Your task to perform on an android device: What's on my calendar tomorrow? Image 0: 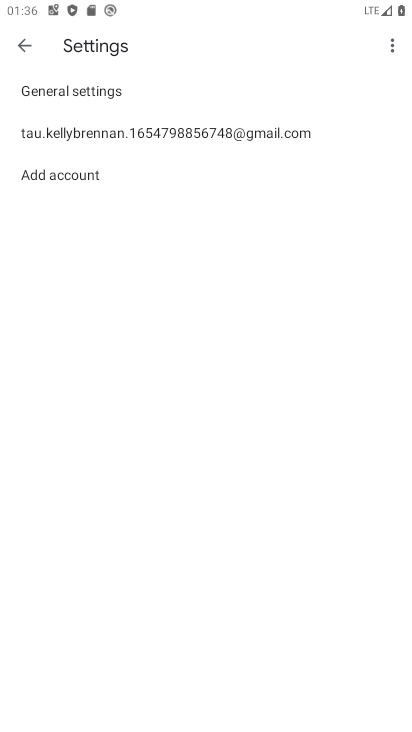
Step 0: press home button
Your task to perform on an android device: What's on my calendar tomorrow? Image 1: 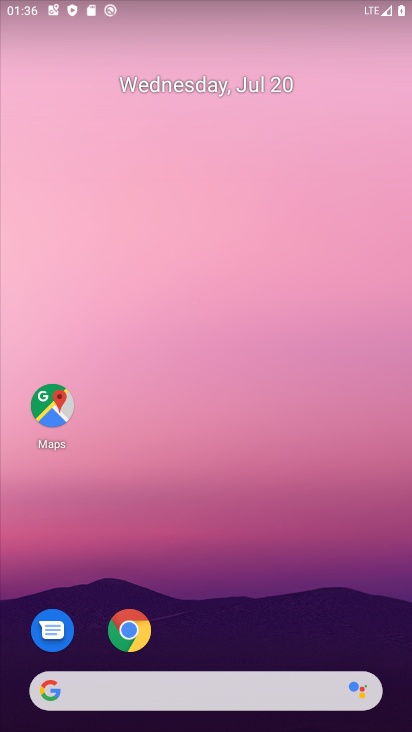
Step 1: drag from (289, 596) to (190, 51)
Your task to perform on an android device: What's on my calendar tomorrow? Image 2: 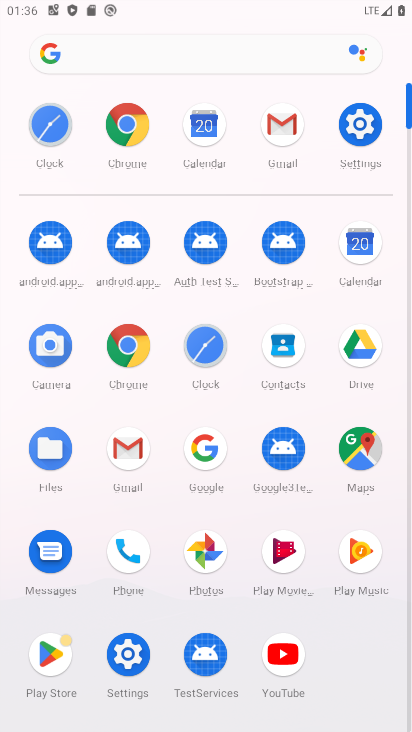
Step 2: click (356, 231)
Your task to perform on an android device: What's on my calendar tomorrow? Image 3: 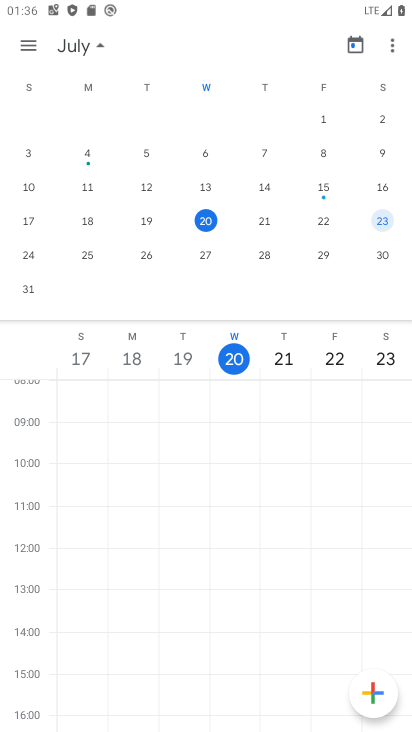
Step 3: click (261, 217)
Your task to perform on an android device: What's on my calendar tomorrow? Image 4: 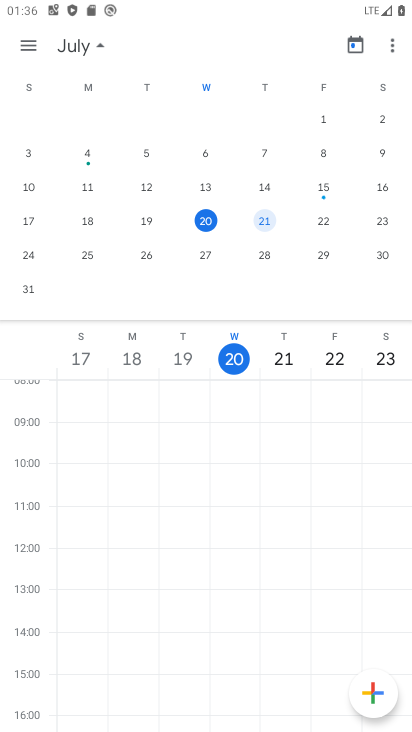
Step 4: click (261, 217)
Your task to perform on an android device: What's on my calendar tomorrow? Image 5: 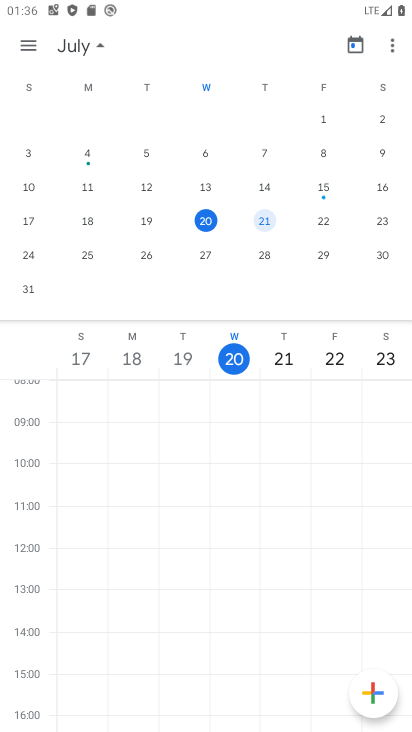
Step 5: click (261, 217)
Your task to perform on an android device: What's on my calendar tomorrow? Image 6: 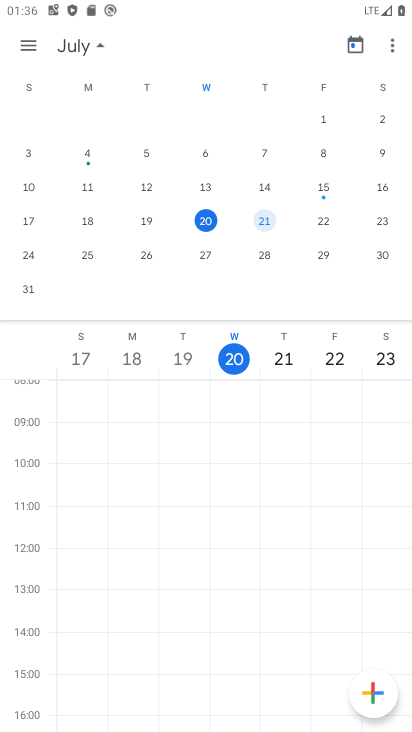
Step 6: click (277, 358)
Your task to perform on an android device: What's on my calendar tomorrow? Image 7: 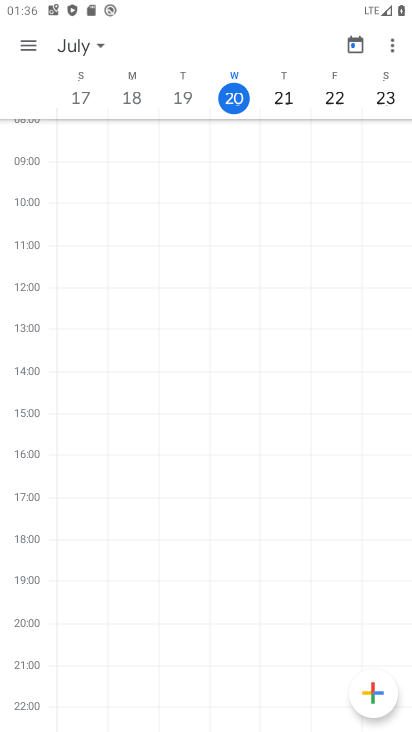
Step 7: click (282, 95)
Your task to perform on an android device: What's on my calendar tomorrow? Image 8: 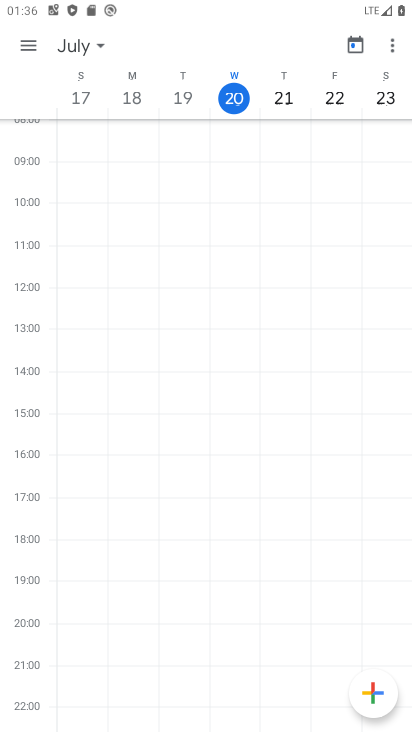
Step 8: click (282, 95)
Your task to perform on an android device: What's on my calendar tomorrow? Image 9: 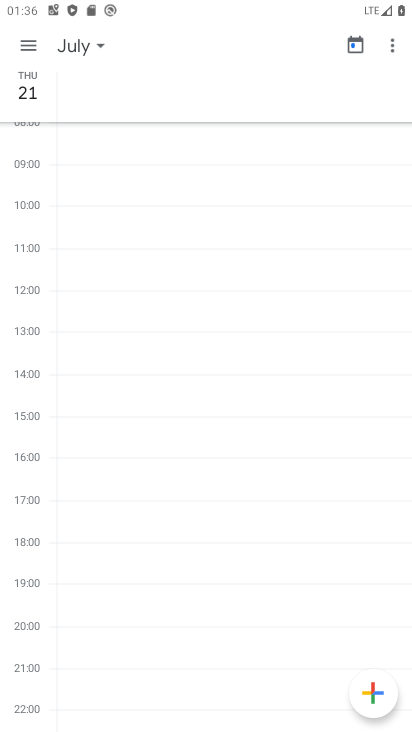
Step 9: task complete